Your task to perform on an android device: Open calendar and show me the first week of next month Image 0: 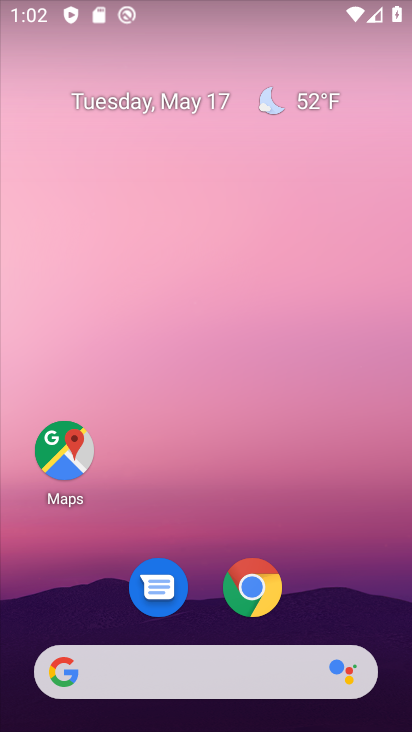
Step 0: drag from (346, 590) to (363, 109)
Your task to perform on an android device: Open calendar and show me the first week of next month Image 1: 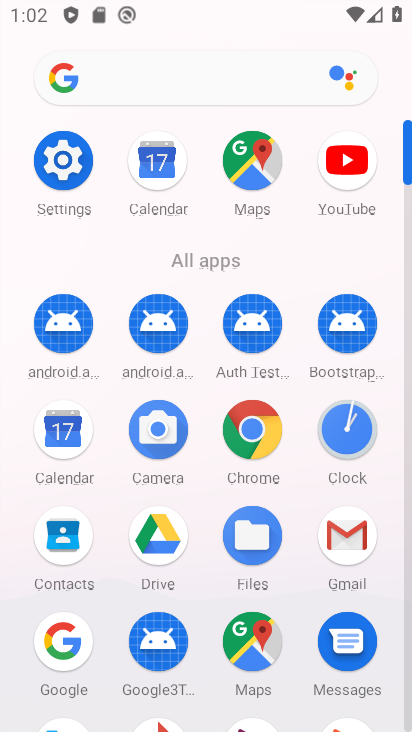
Step 1: click (154, 186)
Your task to perform on an android device: Open calendar and show me the first week of next month Image 2: 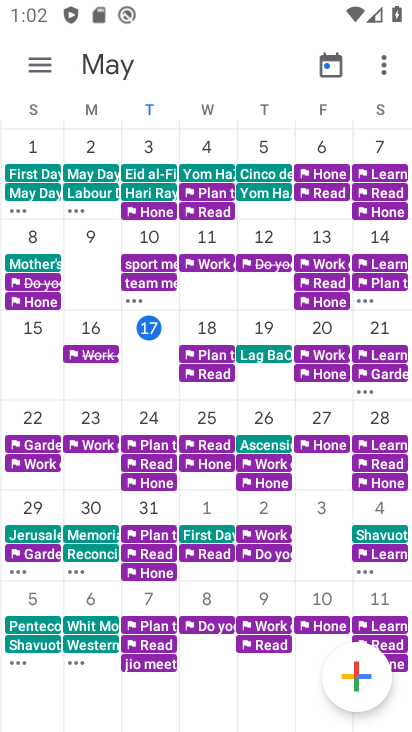
Step 2: click (133, 80)
Your task to perform on an android device: Open calendar and show me the first week of next month Image 3: 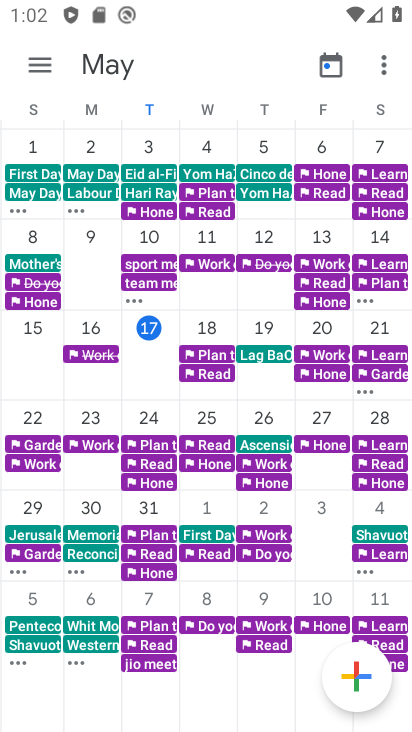
Step 3: click (33, 50)
Your task to perform on an android device: Open calendar and show me the first week of next month Image 4: 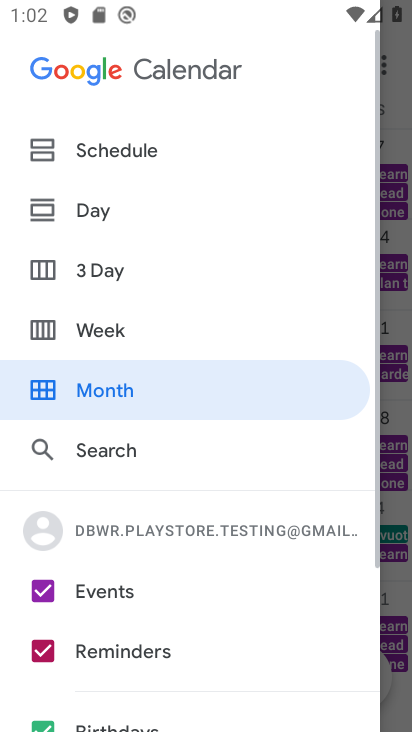
Step 4: click (61, 195)
Your task to perform on an android device: Open calendar and show me the first week of next month Image 5: 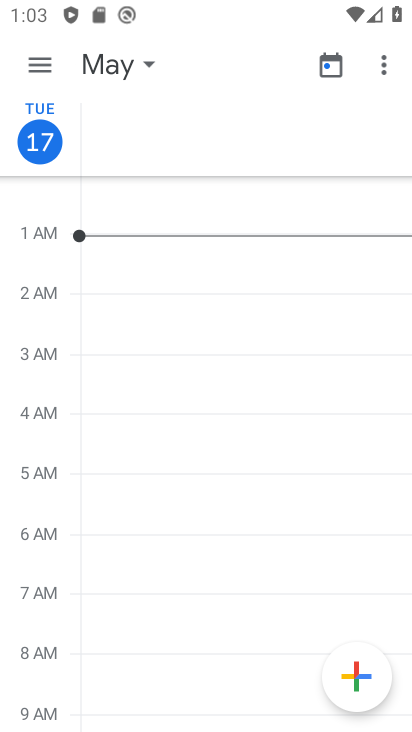
Step 5: click (141, 61)
Your task to perform on an android device: Open calendar and show me the first week of next month Image 6: 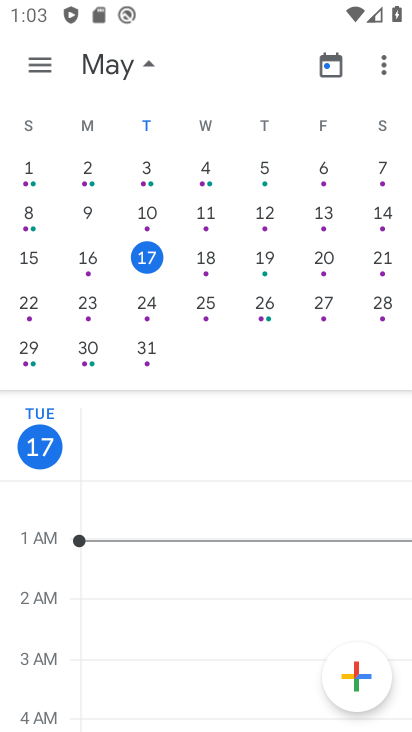
Step 6: drag from (363, 226) to (23, 210)
Your task to perform on an android device: Open calendar and show me the first week of next month Image 7: 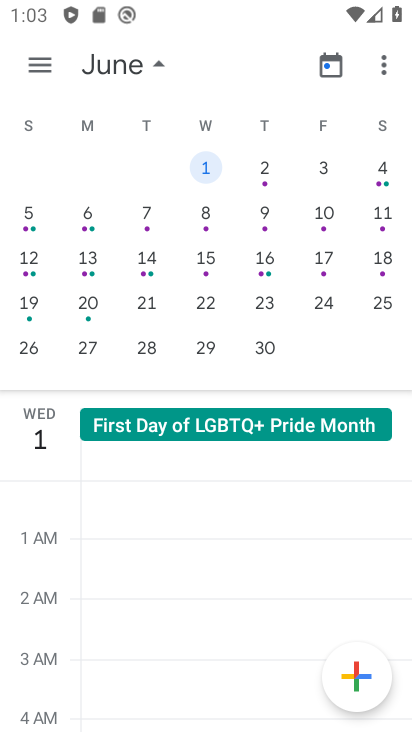
Step 7: click (37, 67)
Your task to perform on an android device: Open calendar and show me the first week of next month Image 8: 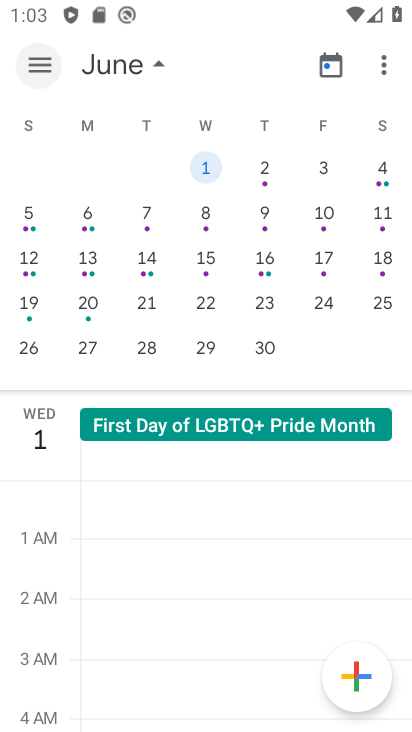
Step 8: click (37, 67)
Your task to perform on an android device: Open calendar and show me the first week of next month Image 9: 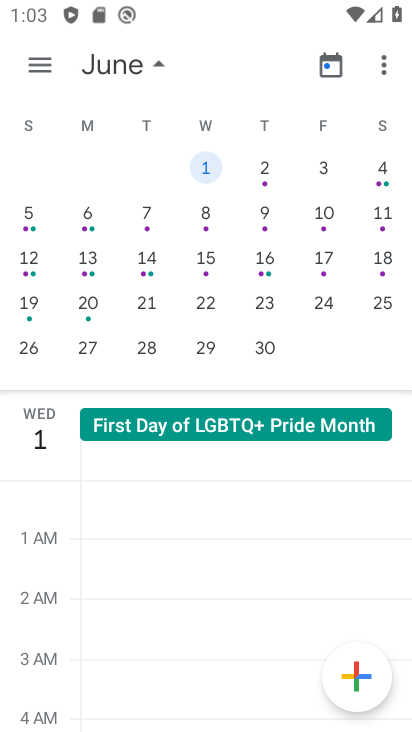
Step 9: click (52, 68)
Your task to perform on an android device: Open calendar and show me the first week of next month Image 10: 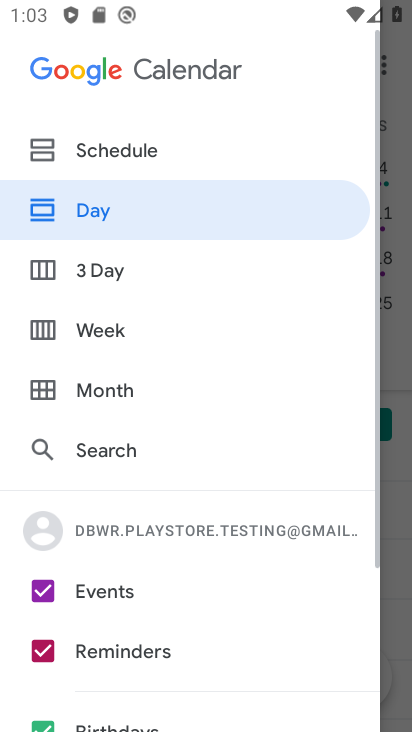
Step 10: click (67, 380)
Your task to perform on an android device: Open calendar and show me the first week of next month Image 11: 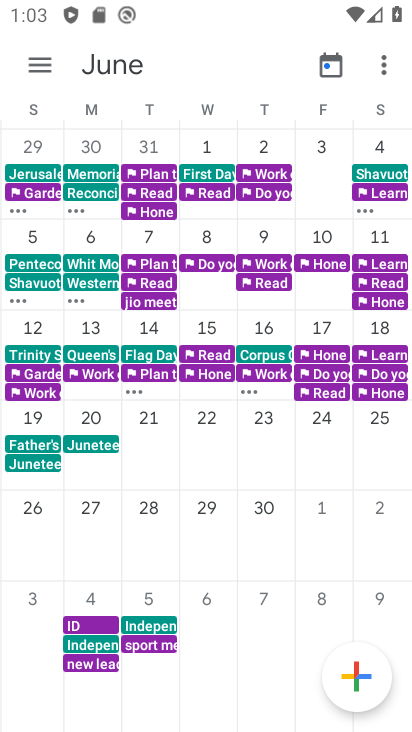
Step 11: task complete